Your task to perform on an android device: Check the settings for the Instagram app Image 0: 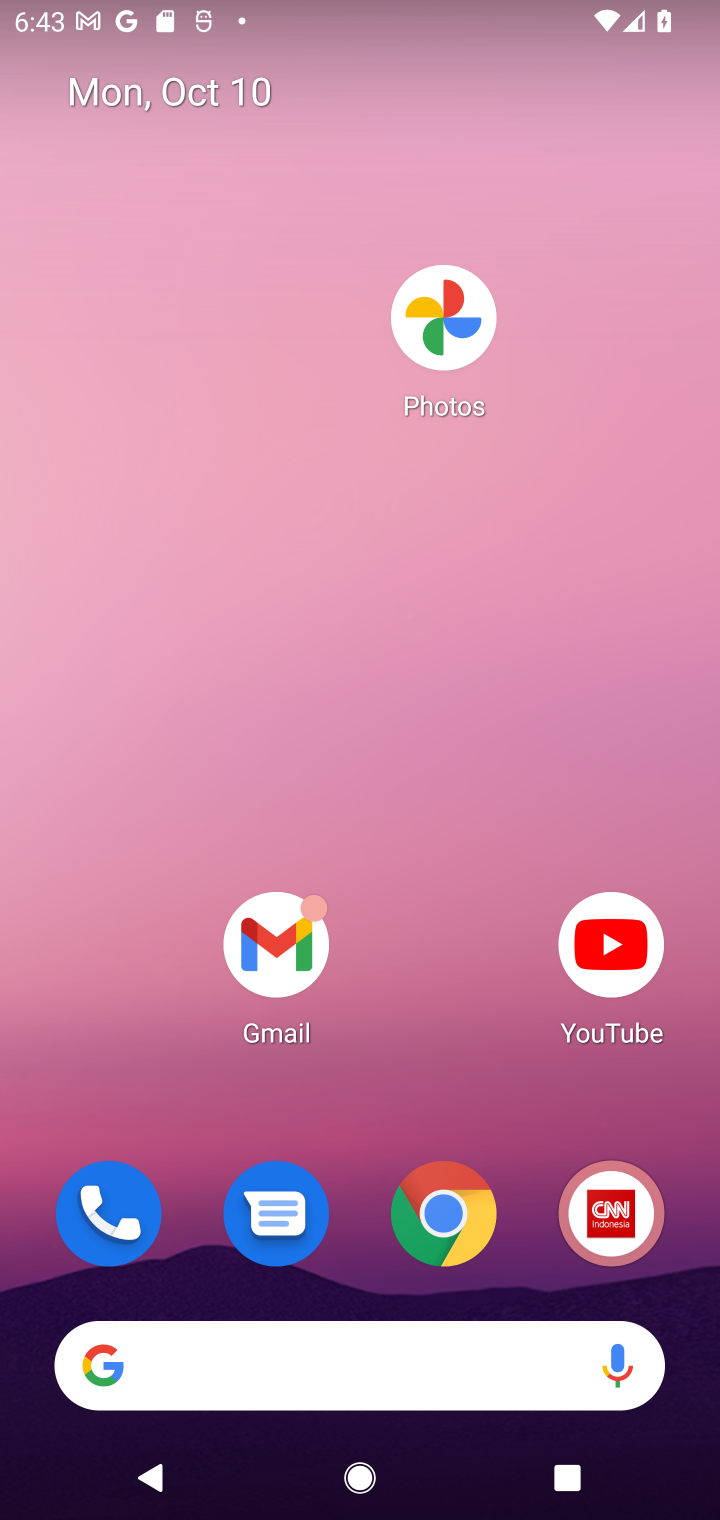
Step 0: drag from (411, 1026) to (306, 337)
Your task to perform on an android device: Check the settings for the Instagram app Image 1: 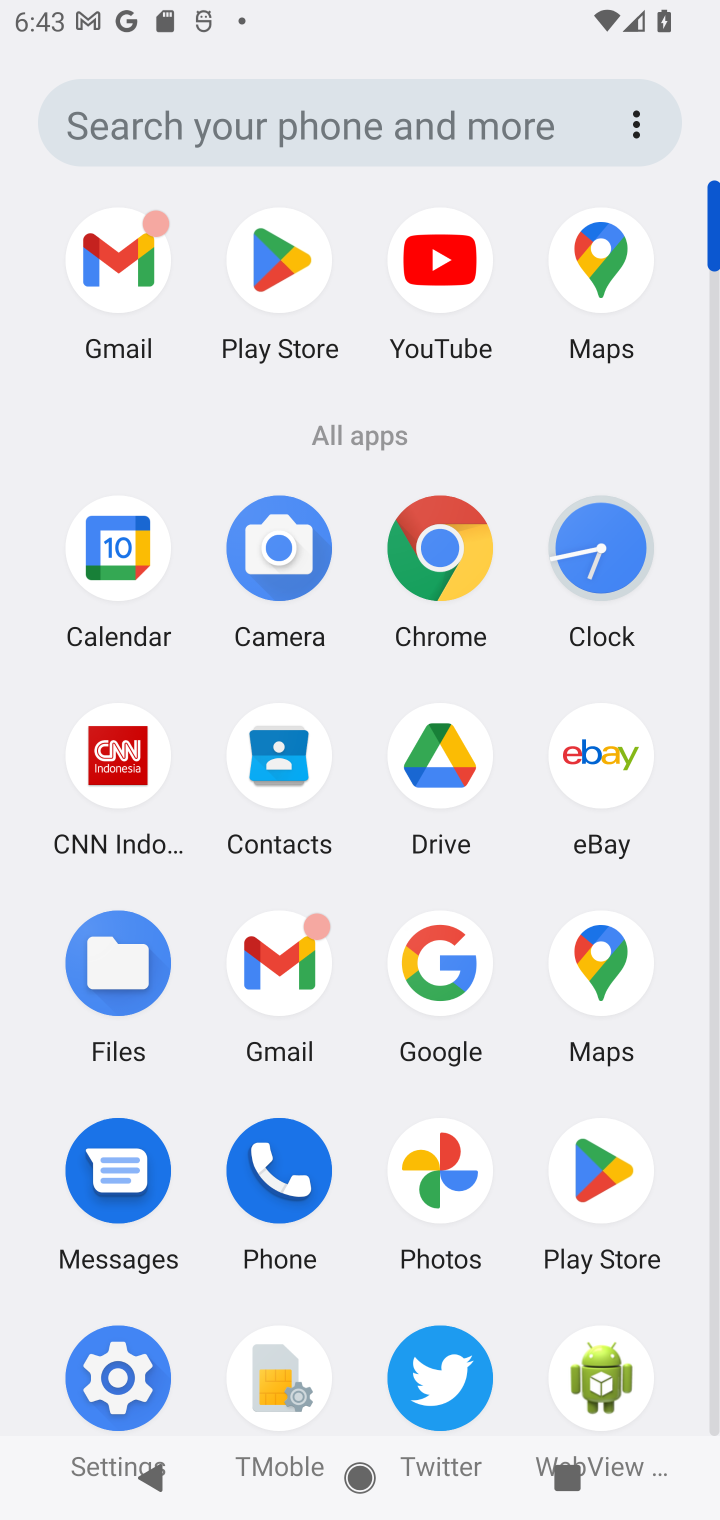
Step 1: task complete